Your task to perform on an android device: Go to ESPN.com Image 0: 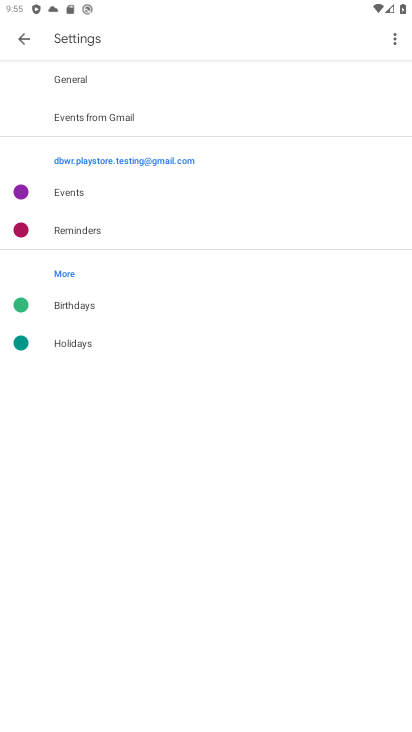
Step 0: press home button
Your task to perform on an android device: Go to ESPN.com Image 1: 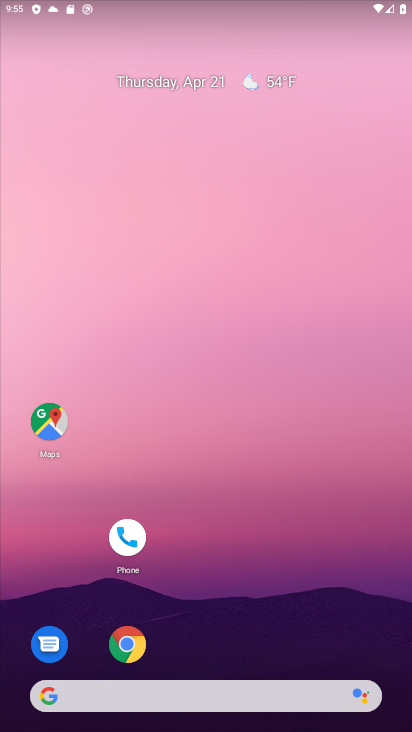
Step 1: click (123, 641)
Your task to perform on an android device: Go to ESPN.com Image 2: 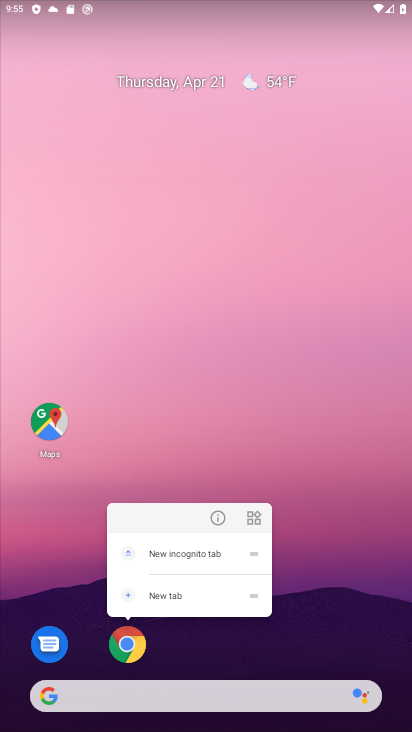
Step 2: click (127, 638)
Your task to perform on an android device: Go to ESPN.com Image 3: 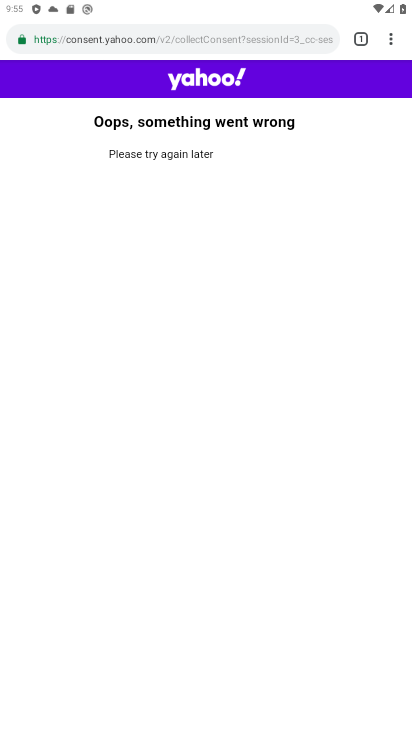
Step 3: click (212, 35)
Your task to perform on an android device: Go to ESPN.com Image 4: 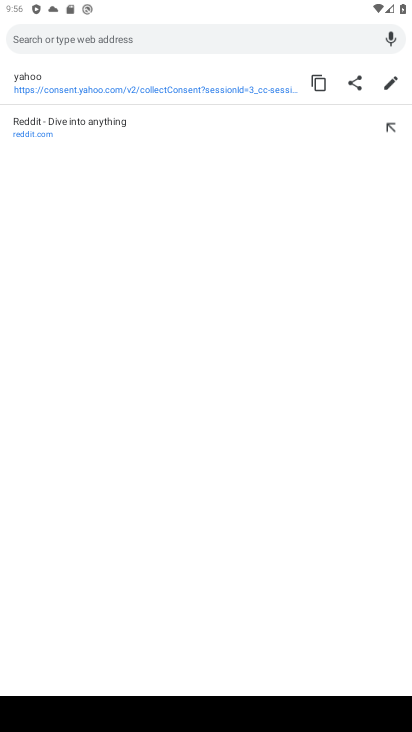
Step 4: type "espn.com"
Your task to perform on an android device: Go to ESPN.com Image 5: 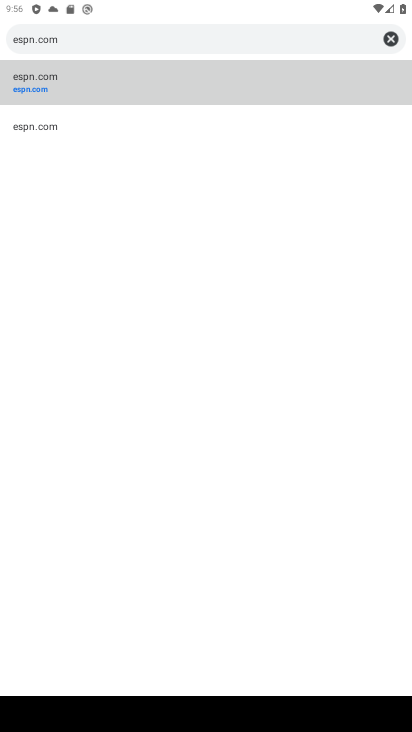
Step 5: click (34, 83)
Your task to perform on an android device: Go to ESPN.com Image 6: 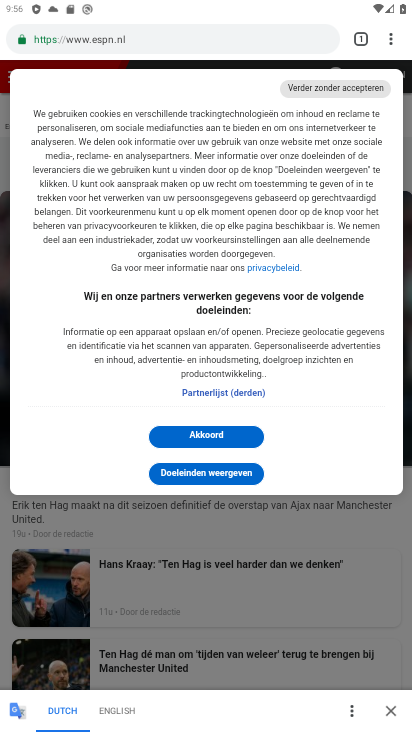
Step 6: task complete